Your task to perform on an android device: turn off wifi Image 0: 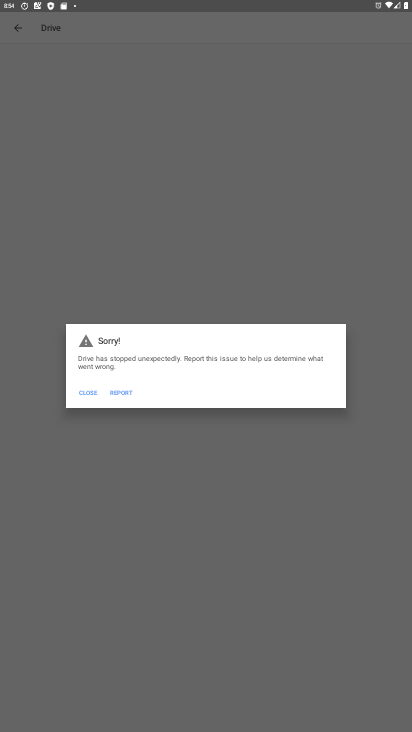
Step 0: drag from (212, 678) to (234, 60)
Your task to perform on an android device: turn off wifi Image 1: 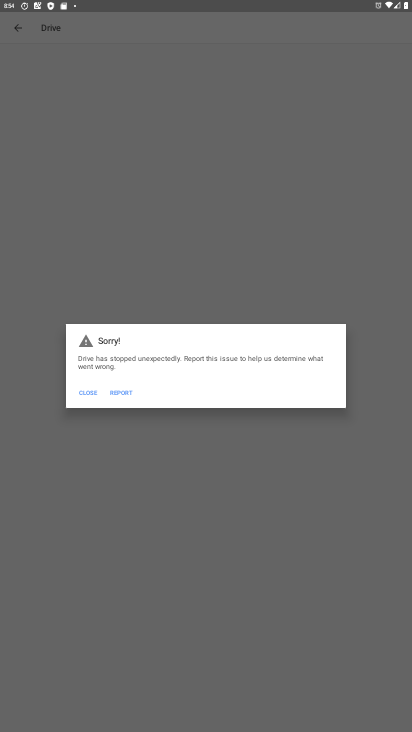
Step 1: press home button
Your task to perform on an android device: turn off wifi Image 2: 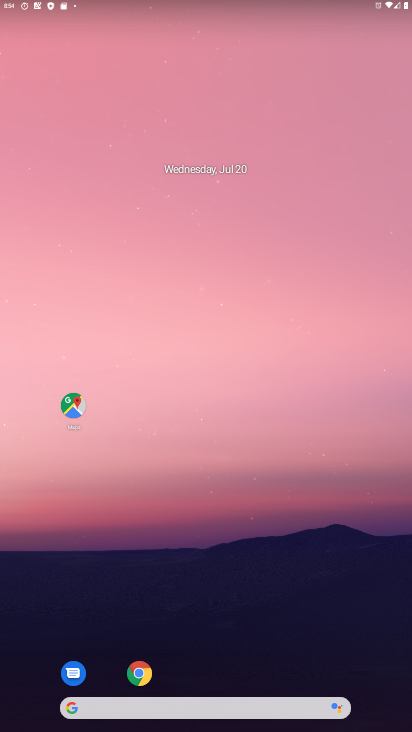
Step 2: drag from (229, 640) to (222, 109)
Your task to perform on an android device: turn off wifi Image 3: 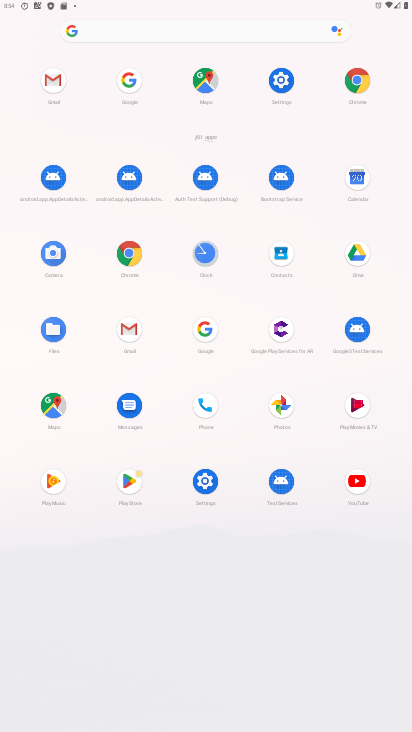
Step 3: click (281, 83)
Your task to perform on an android device: turn off wifi Image 4: 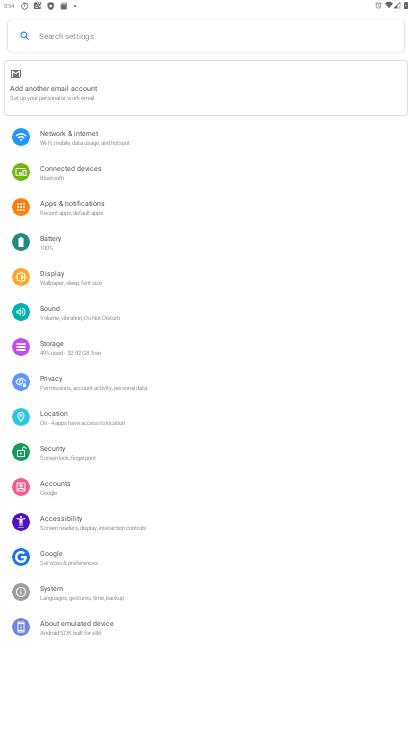
Step 4: click (74, 147)
Your task to perform on an android device: turn off wifi Image 5: 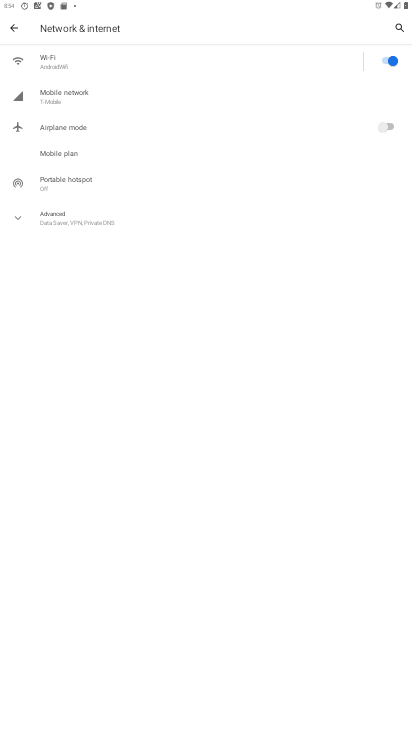
Step 5: click (390, 63)
Your task to perform on an android device: turn off wifi Image 6: 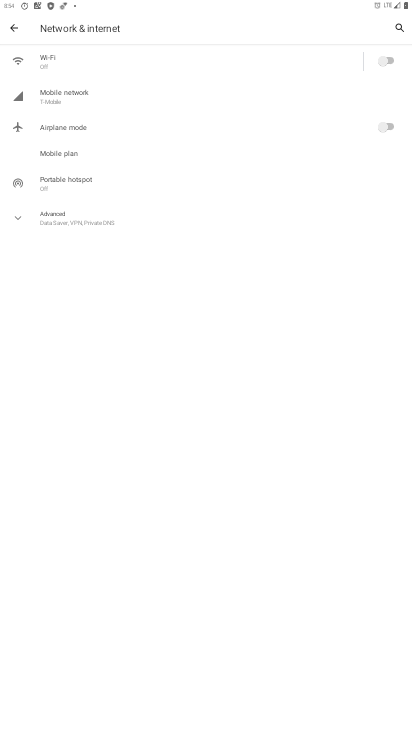
Step 6: task complete